Your task to perform on an android device: Show the shopping cart on walmart.com. Search for "logitech g903" on walmart.com, select the first entry, add it to the cart, then select checkout. Image 0: 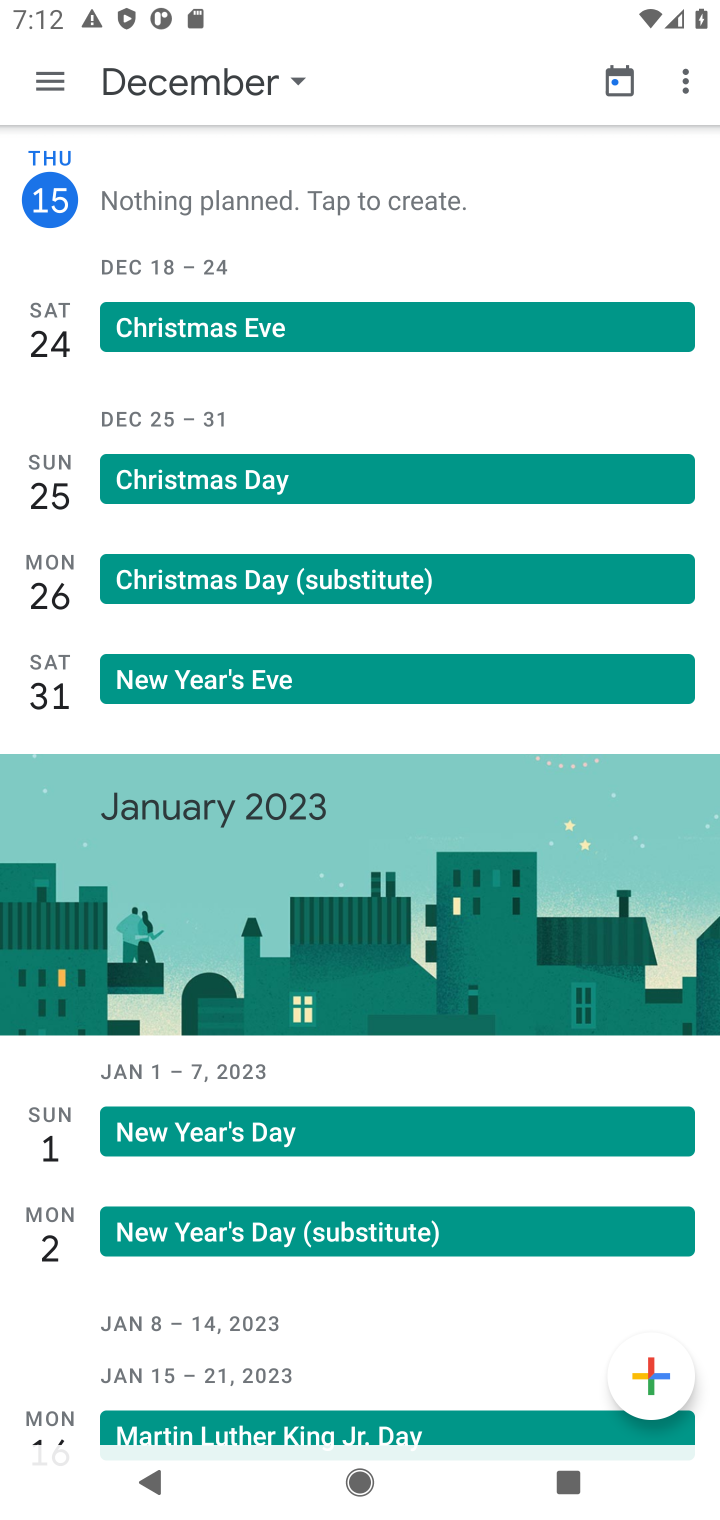
Step 0: press home button
Your task to perform on an android device: Show the shopping cart on walmart.com. Search for "logitech g903" on walmart.com, select the first entry, add it to the cart, then select checkout. Image 1: 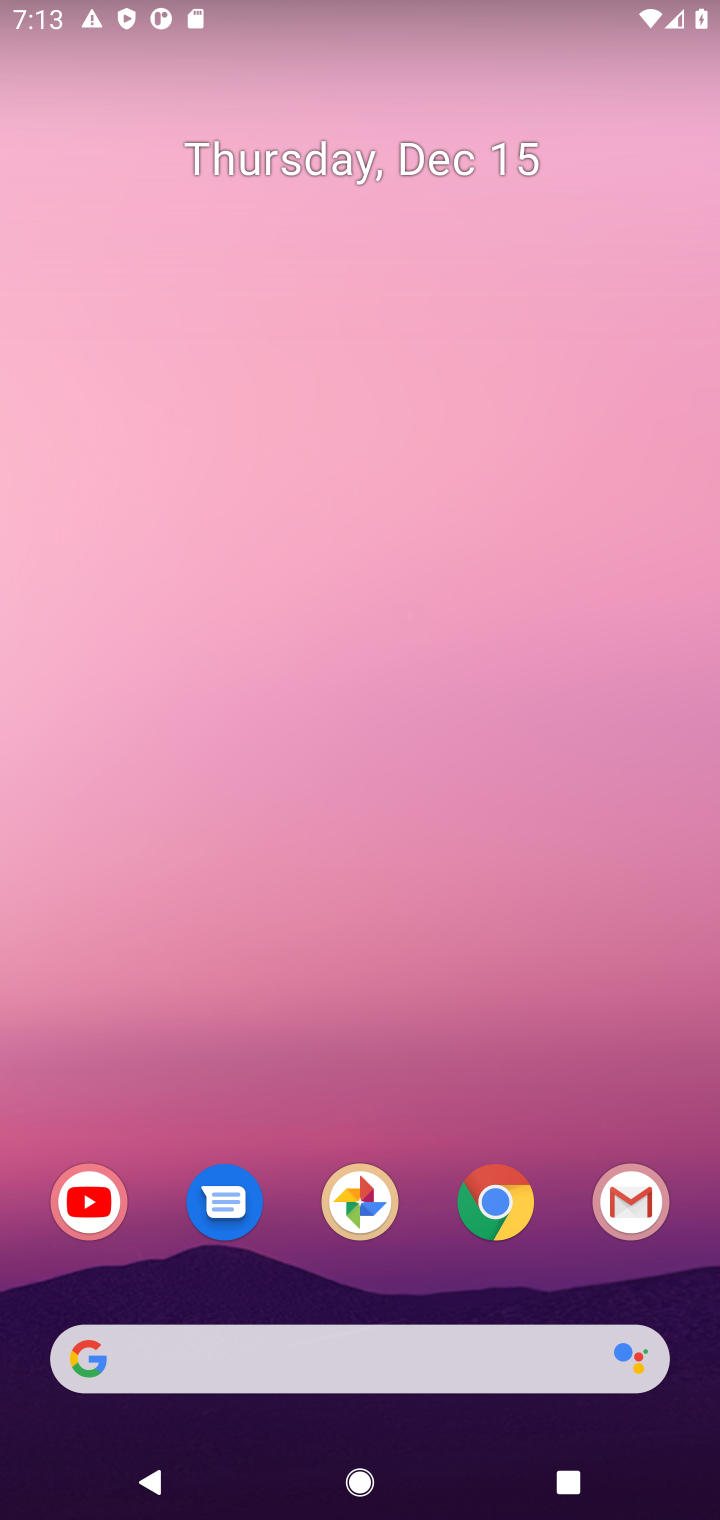
Step 1: click (504, 1196)
Your task to perform on an android device: Show the shopping cart on walmart.com. Search for "logitech g903" on walmart.com, select the first entry, add it to the cart, then select checkout. Image 2: 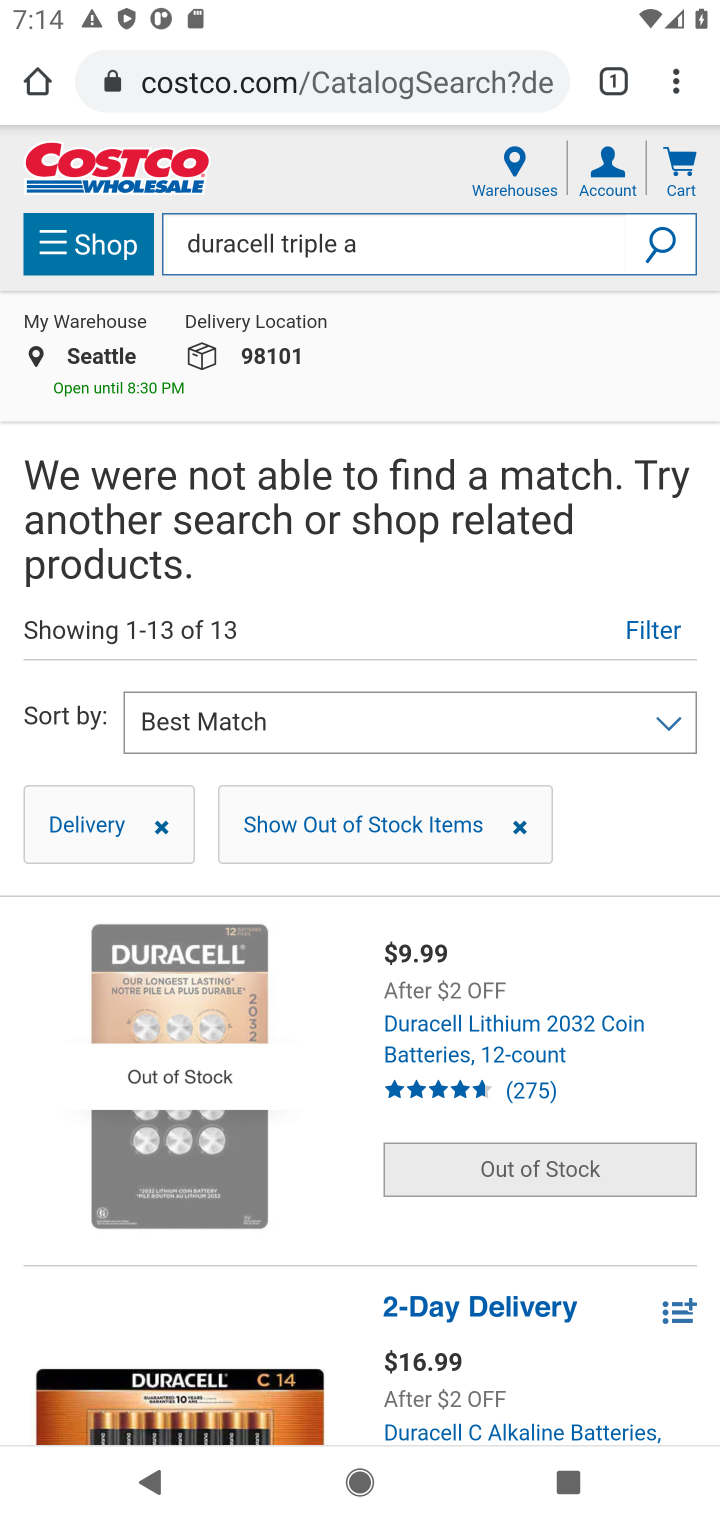
Step 2: click (325, 84)
Your task to perform on an android device: Show the shopping cart on walmart.com. Search for "logitech g903" on walmart.com, select the first entry, add it to the cart, then select checkout. Image 3: 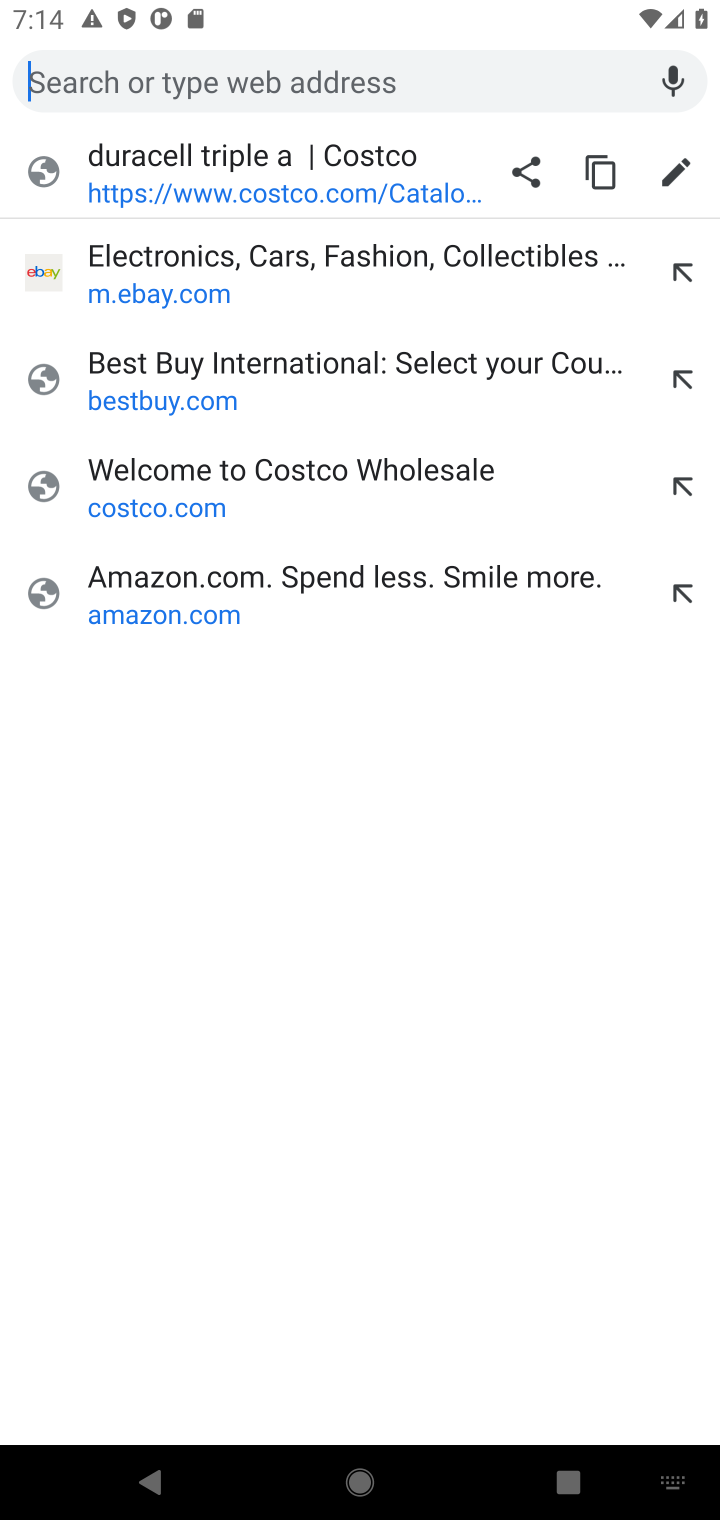
Step 3: type "walmart.com"
Your task to perform on an android device: Show the shopping cart on walmart.com. Search for "logitech g903" on walmart.com, select the first entry, add it to the cart, then select checkout. Image 4: 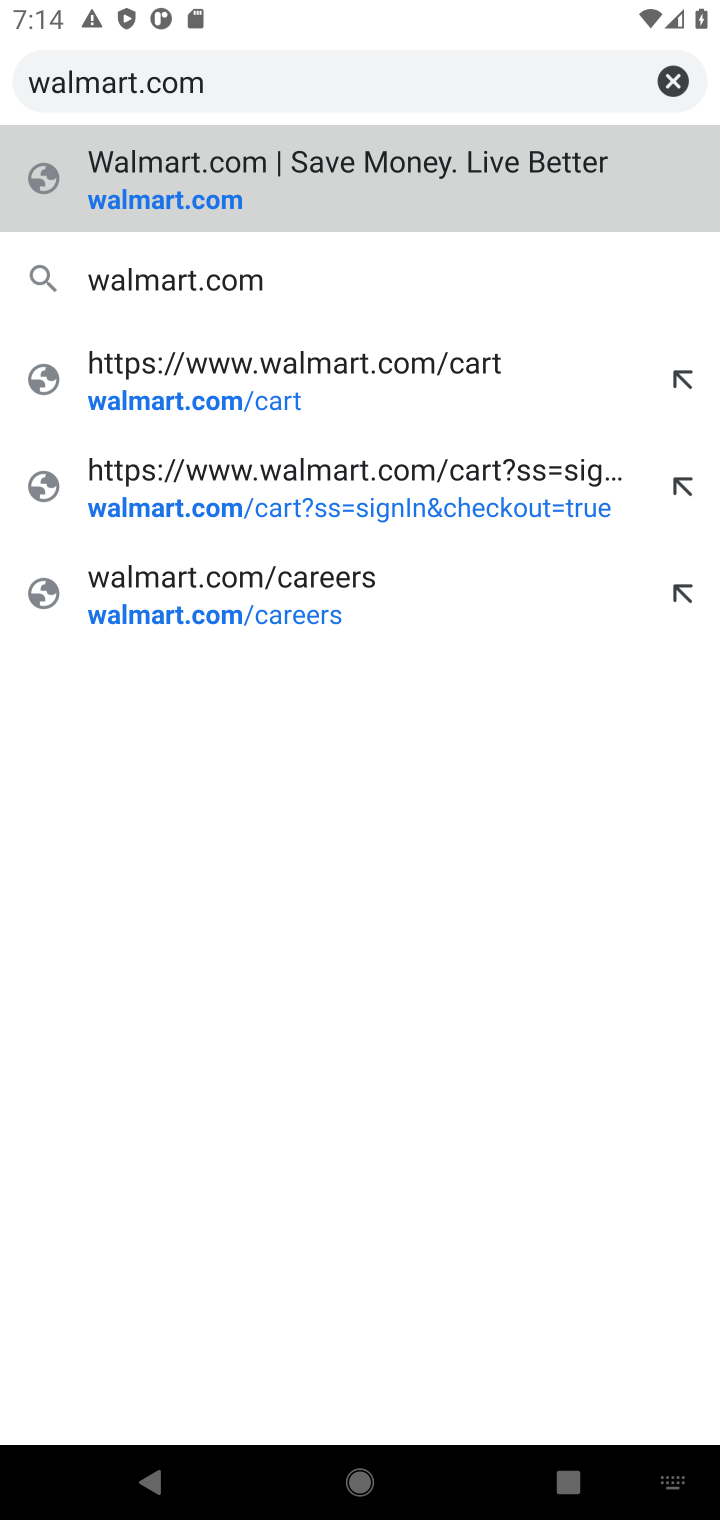
Step 4: click (145, 190)
Your task to perform on an android device: Show the shopping cart on walmart.com. Search for "logitech g903" on walmart.com, select the first entry, add it to the cart, then select checkout. Image 5: 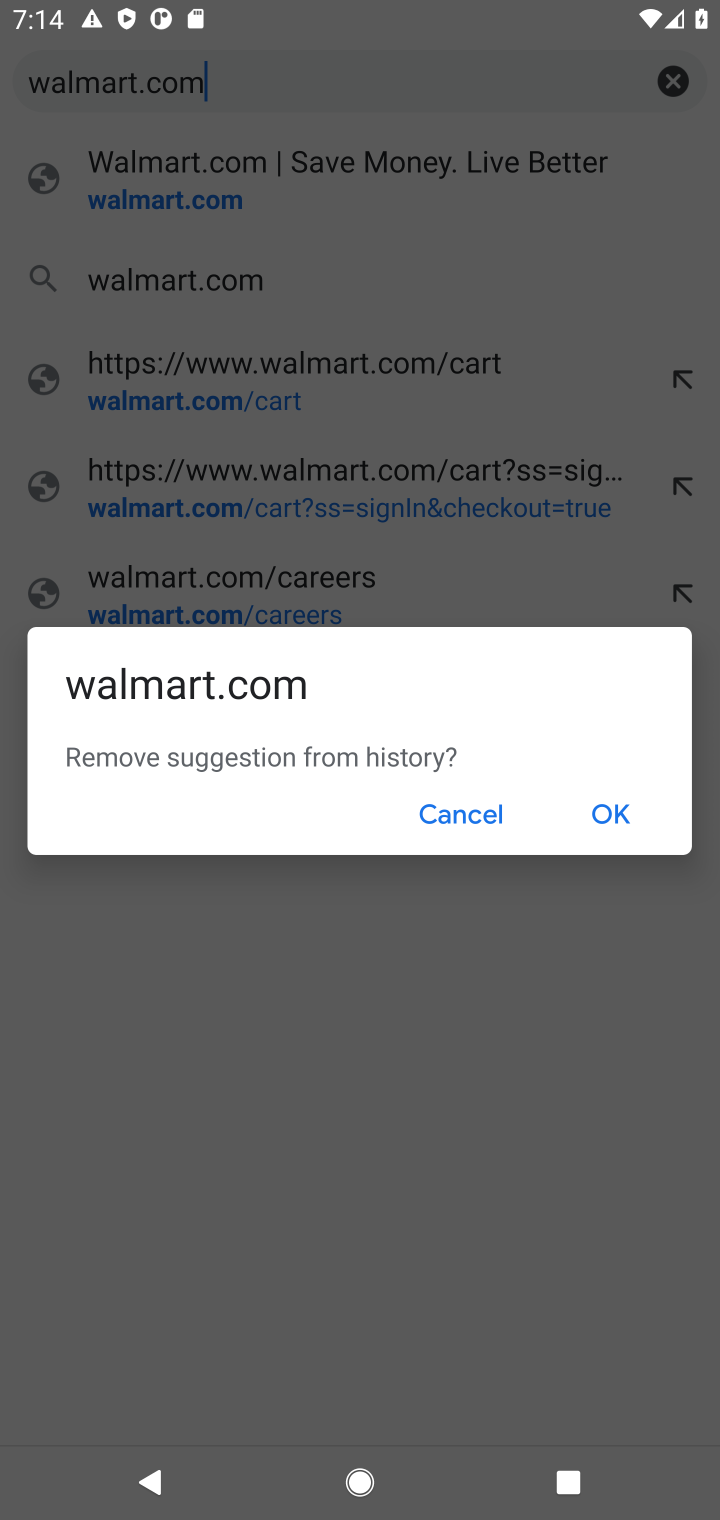
Step 5: click (470, 823)
Your task to perform on an android device: Show the shopping cart on walmart.com. Search for "logitech g903" on walmart.com, select the first entry, add it to the cart, then select checkout. Image 6: 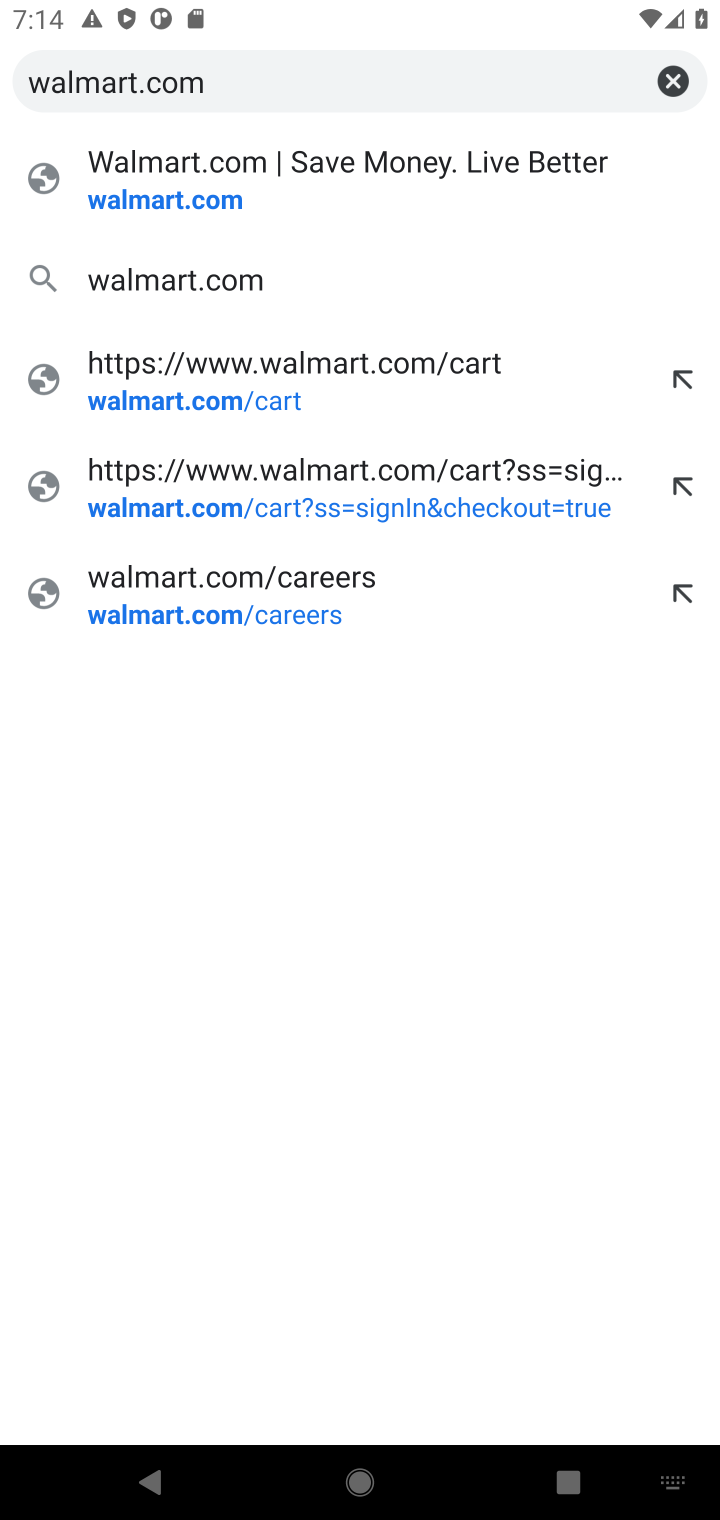
Step 6: click (228, 180)
Your task to perform on an android device: Show the shopping cart on walmart.com. Search for "logitech g903" on walmart.com, select the first entry, add it to the cart, then select checkout. Image 7: 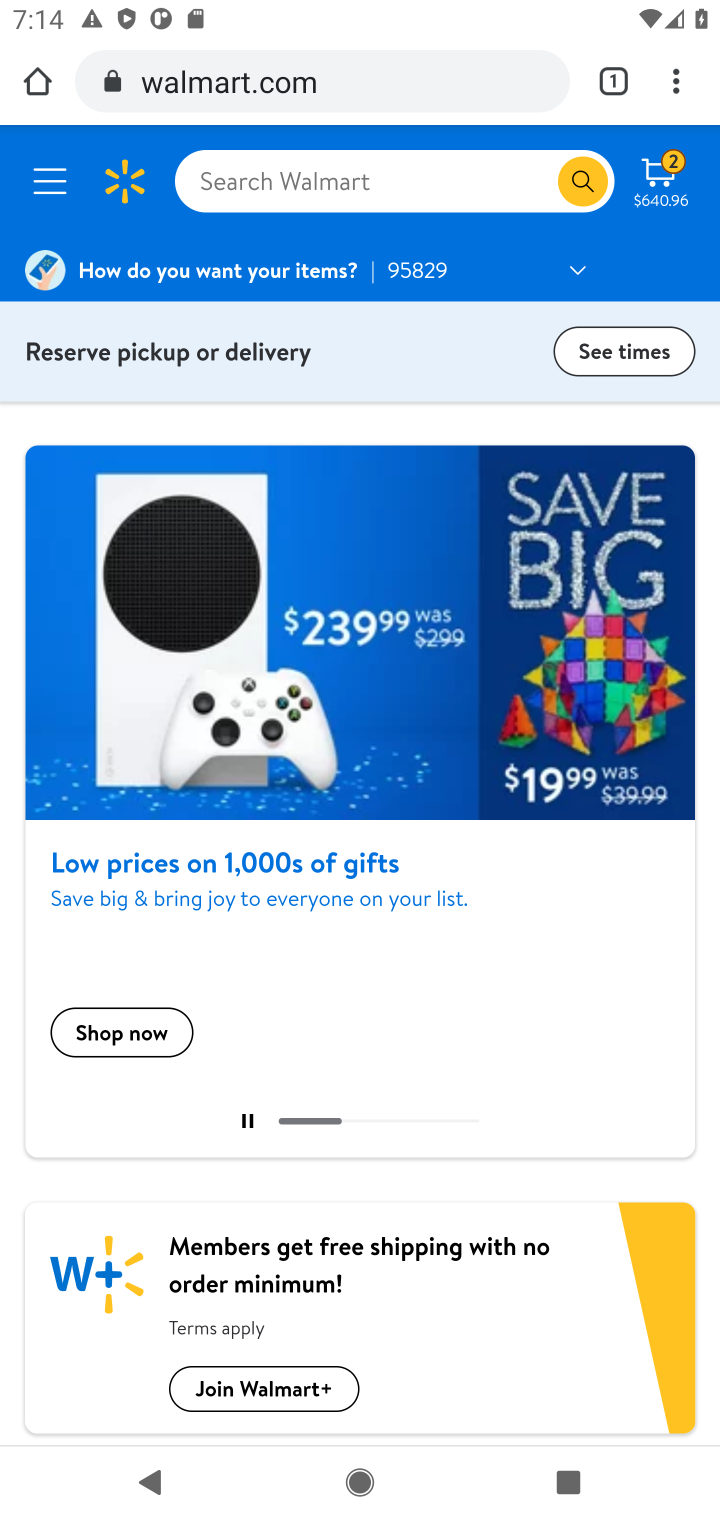
Step 7: click (655, 184)
Your task to perform on an android device: Show the shopping cart on walmart.com. Search for "logitech g903" on walmart.com, select the first entry, add it to the cart, then select checkout. Image 8: 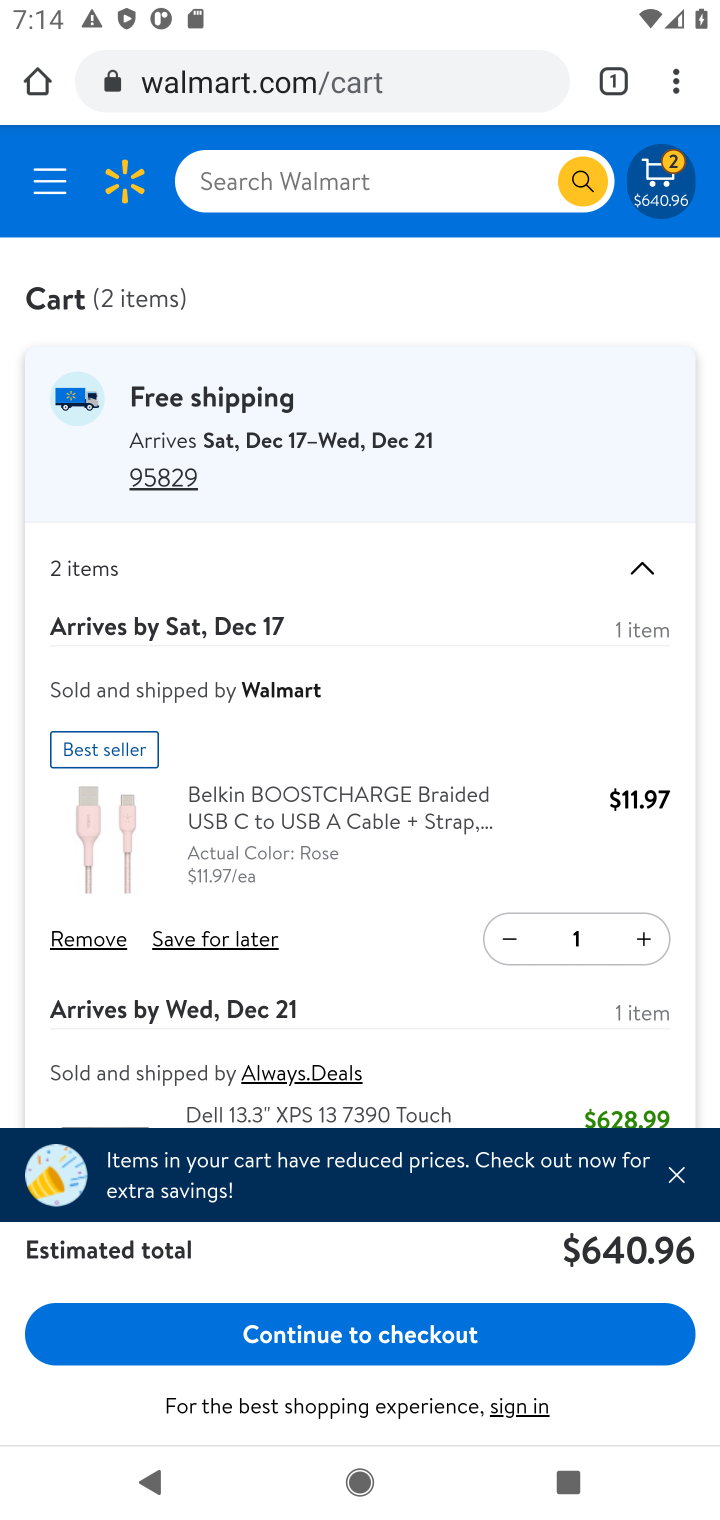
Step 8: click (291, 184)
Your task to perform on an android device: Show the shopping cart on walmart.com. Search for "logitech g903" on walmart.com, select the first entry, add it to the cart, then select checkout. Image 9: 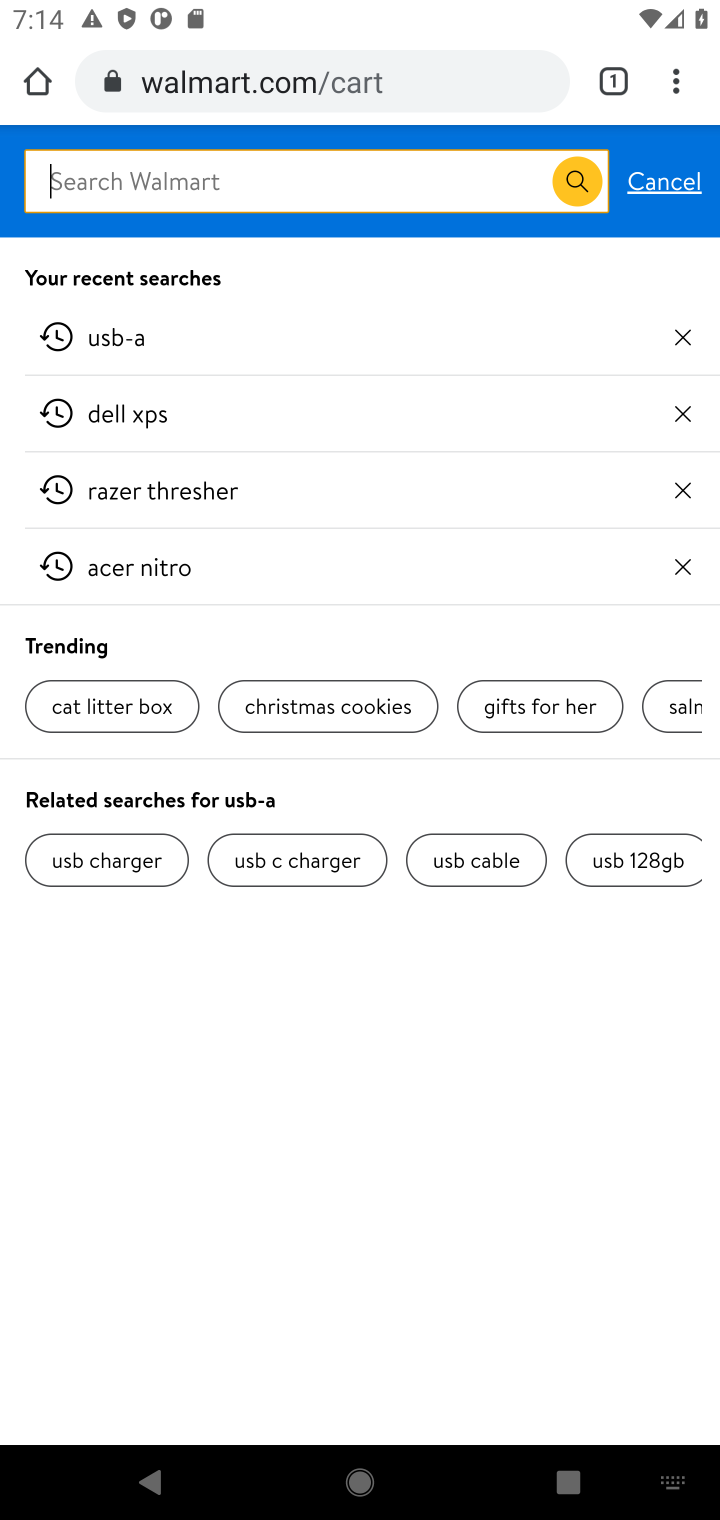
Step 9: type "logitech g903"
Your task to perform on an android device: Show the shopping cart on walmart.com. Search for "logitech g903" on walmart.com, select the first entry, add it to the cart, then select checkout. Image 10: 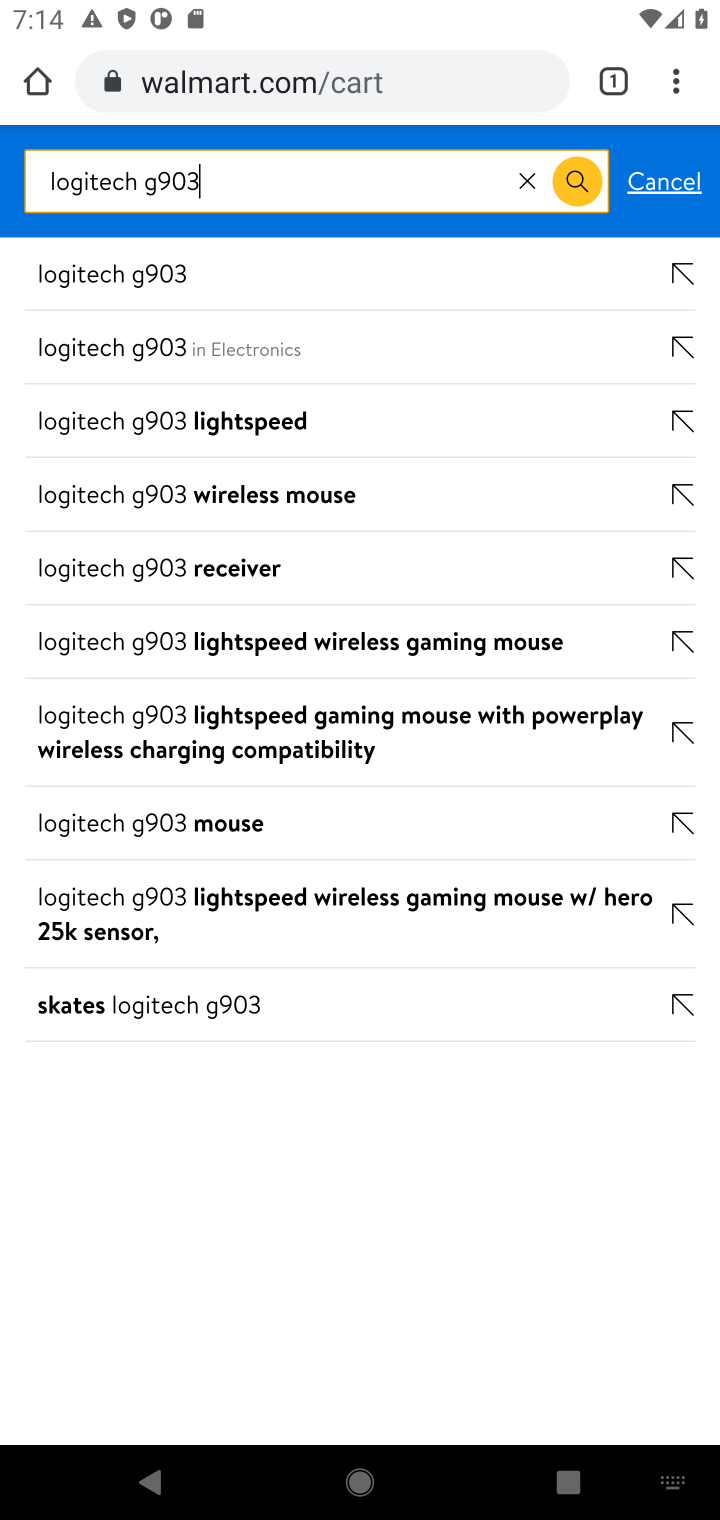
Step 10: click (121, 274)
Your task to perform on an android device: Show the shopping cart on walmart.com. Search for "logitech g903" on walmart.com, select the first entry, add it to the cart, then select checkout. Image 11: 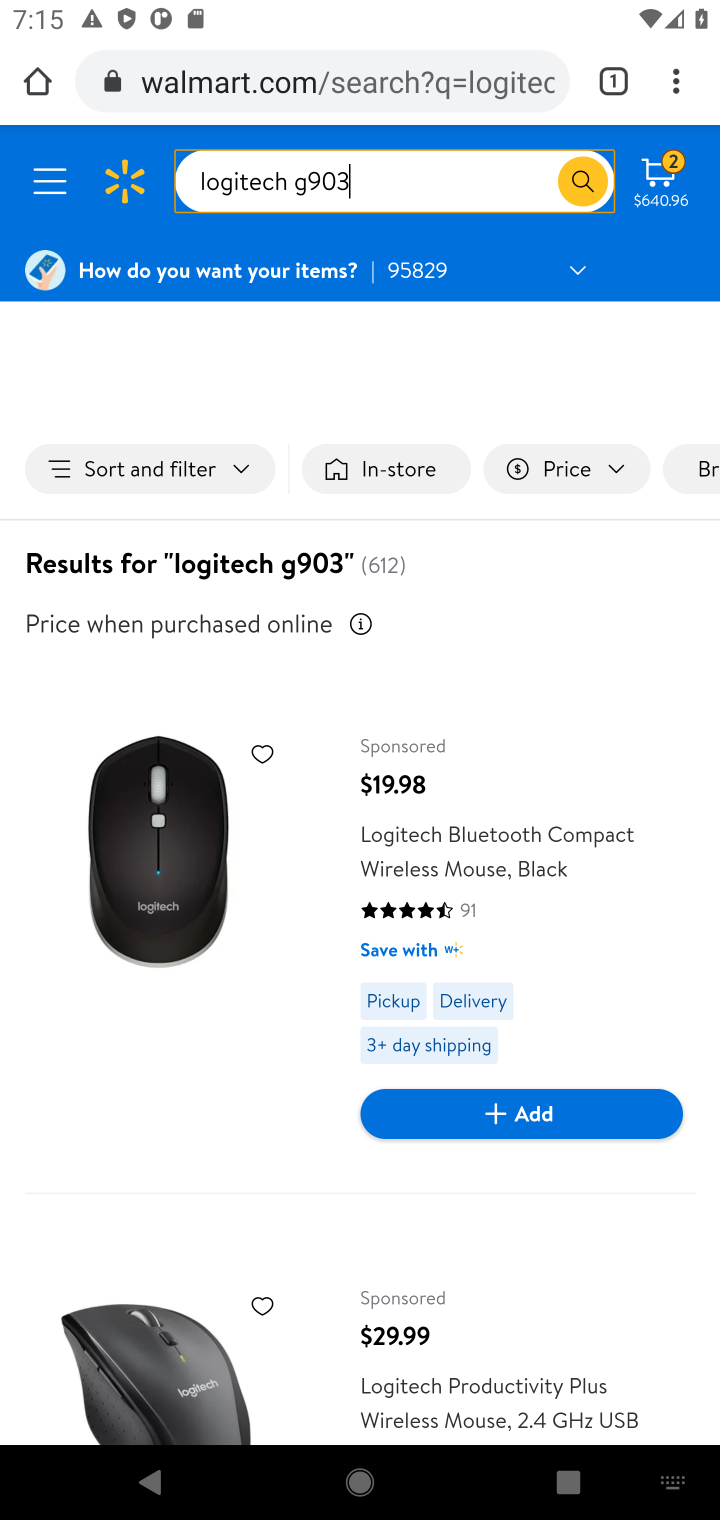
Step 11: task complete